Your task to perform on an android device: open a bookmark in the chrome app Image 0: 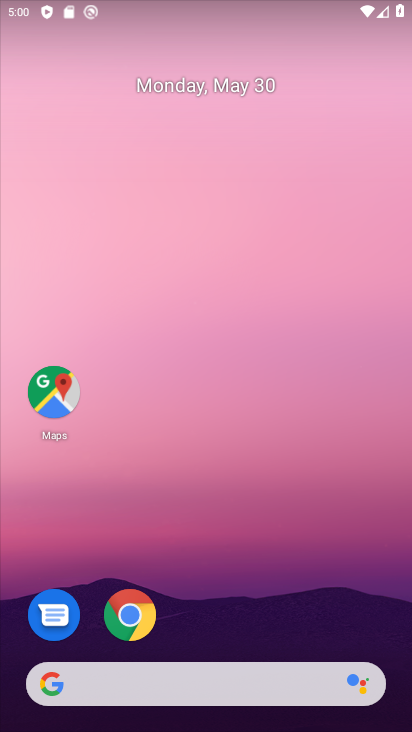
Step 0: click (133, 611)
Your task to perform on an android device: open a bookmark in the chrome app Image 1: 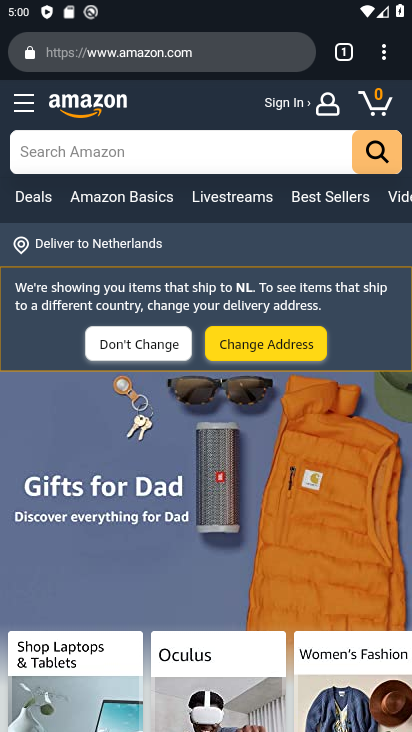
Step 1: click (391, 65)
Your task to perform on an android device: open a bookmark in the chrome app Image 2: 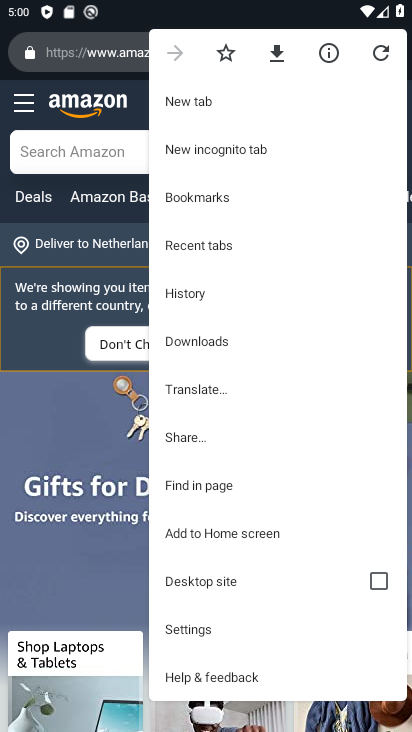
Step 2: click (228, 216)
Your task to perform on an android device: open a bookmark in the chrome app Image 3: 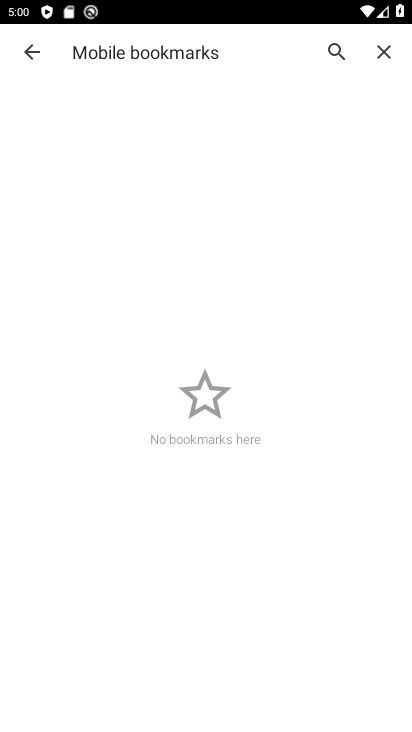
Step 3: task complete